Your task to perform on an android device: make emails show in primary in the gmail app Image 0: 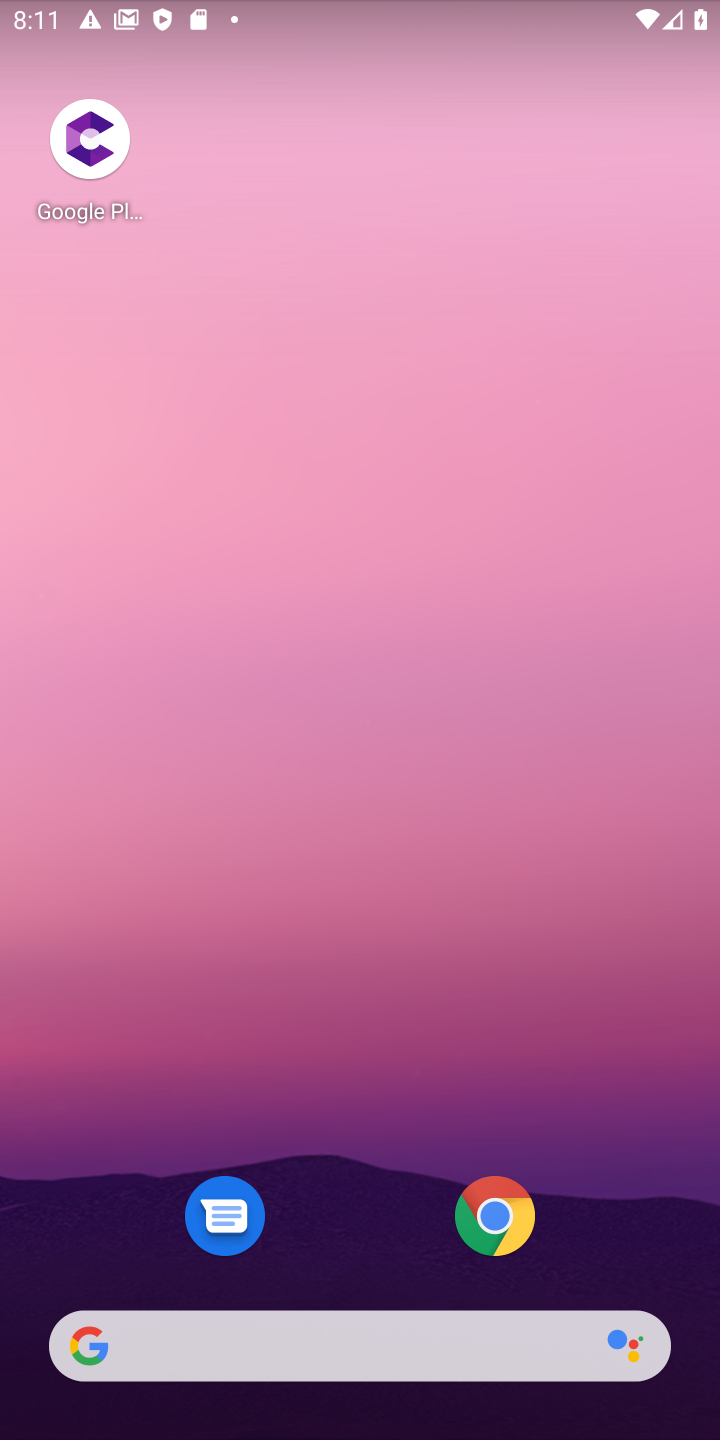
Step 0: drag from (394, 1032) to (570, 74)
Your task to perform on an android device: make emails show in primary in the gmail app Image 1: 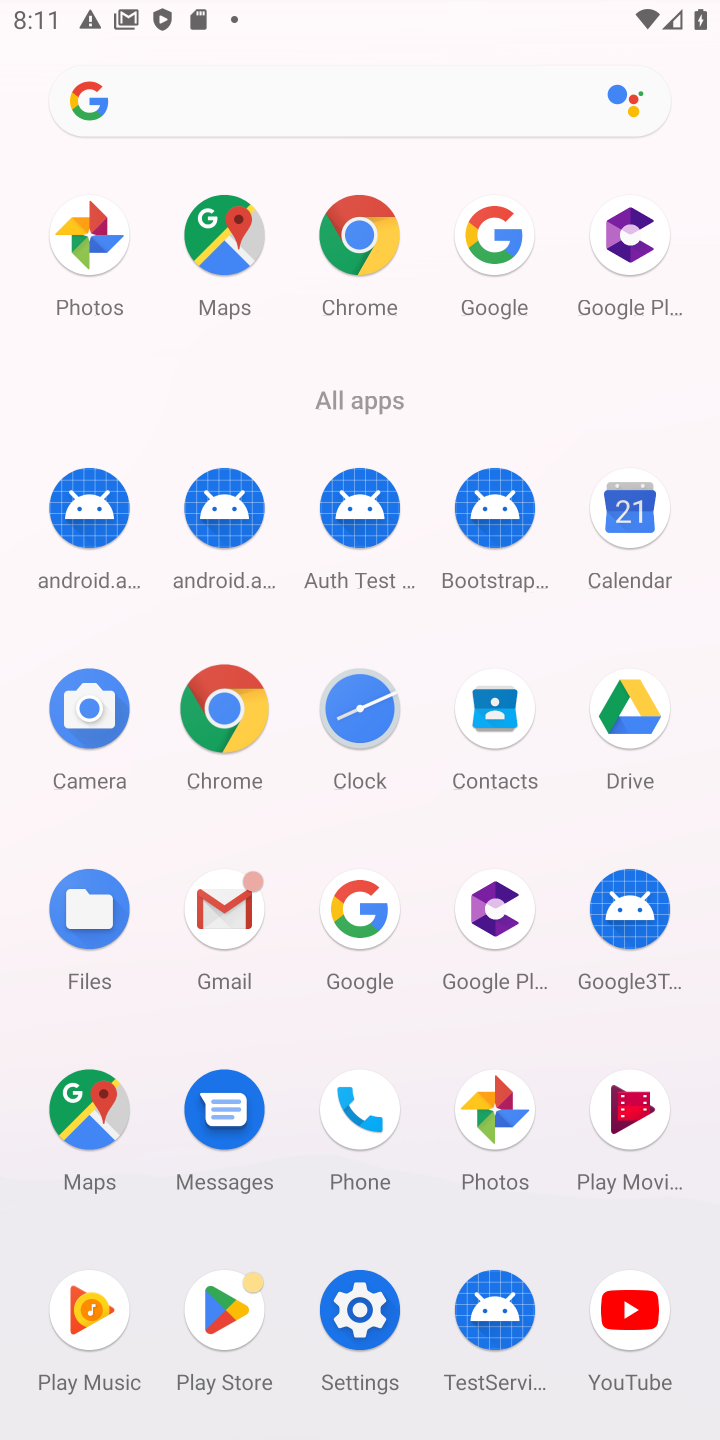
Step 1: click (222, 912)
Your task to perform on an android device: make emails show in primary in the gmail app Image 2: 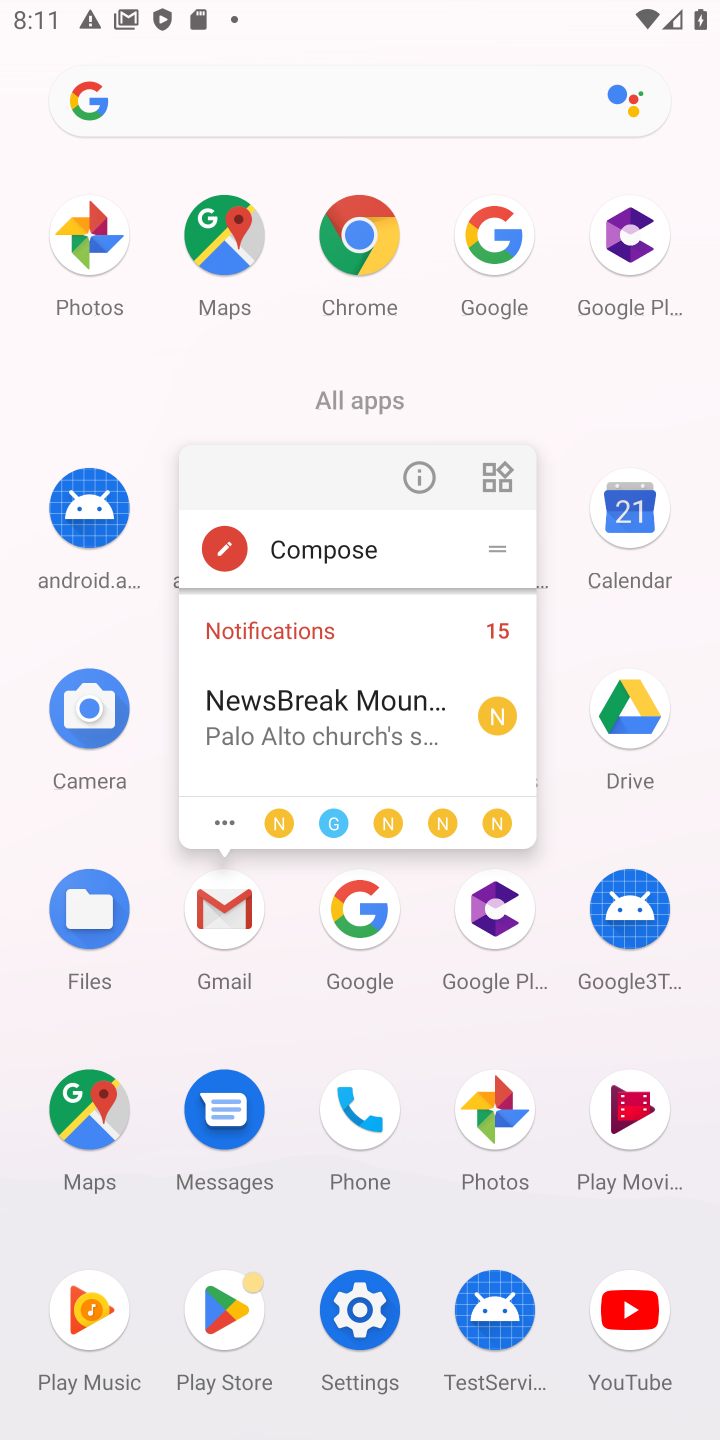
Step 2: click (222, 912)
Your task to perform on an android device: make emails show in primary in the gmail app Image 3: 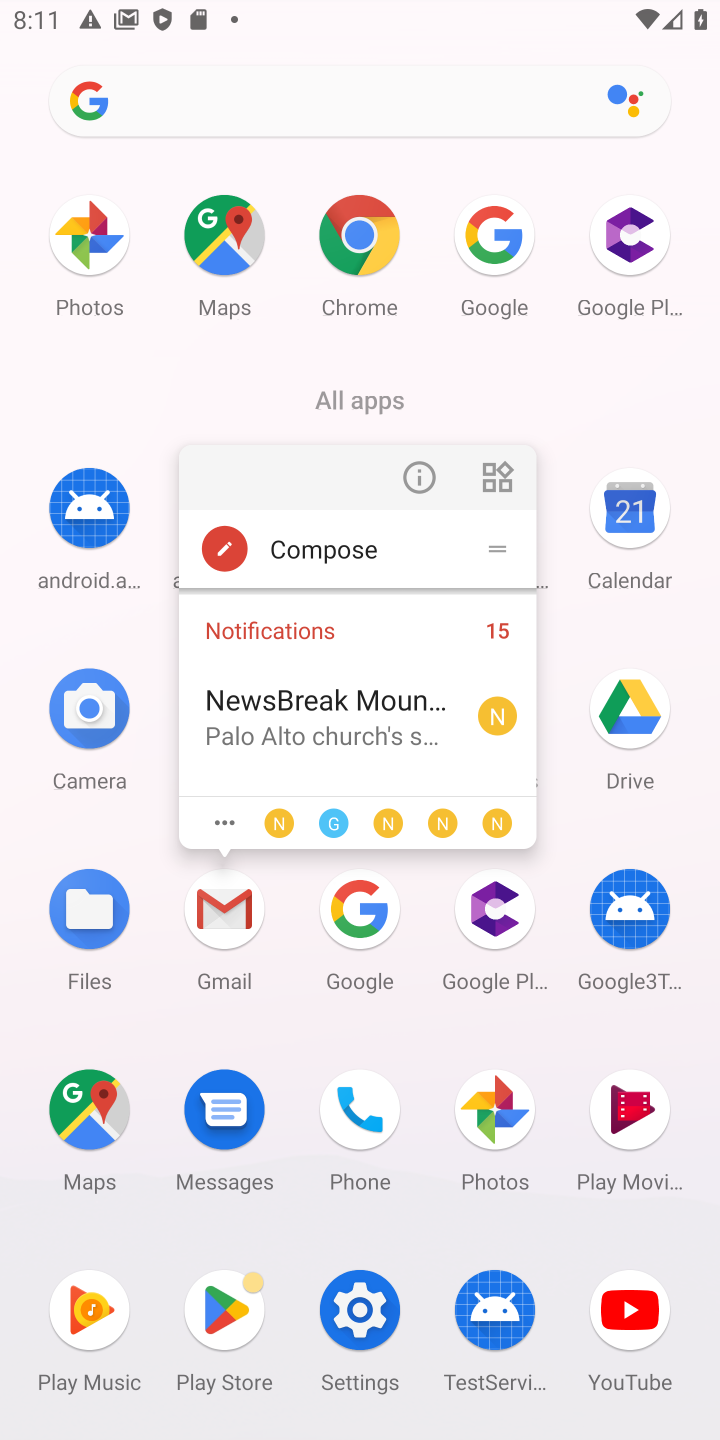
Step 3: click (222, 912)
Your task to perform on an android device: make emails show in primary in the gmail app Image 4: 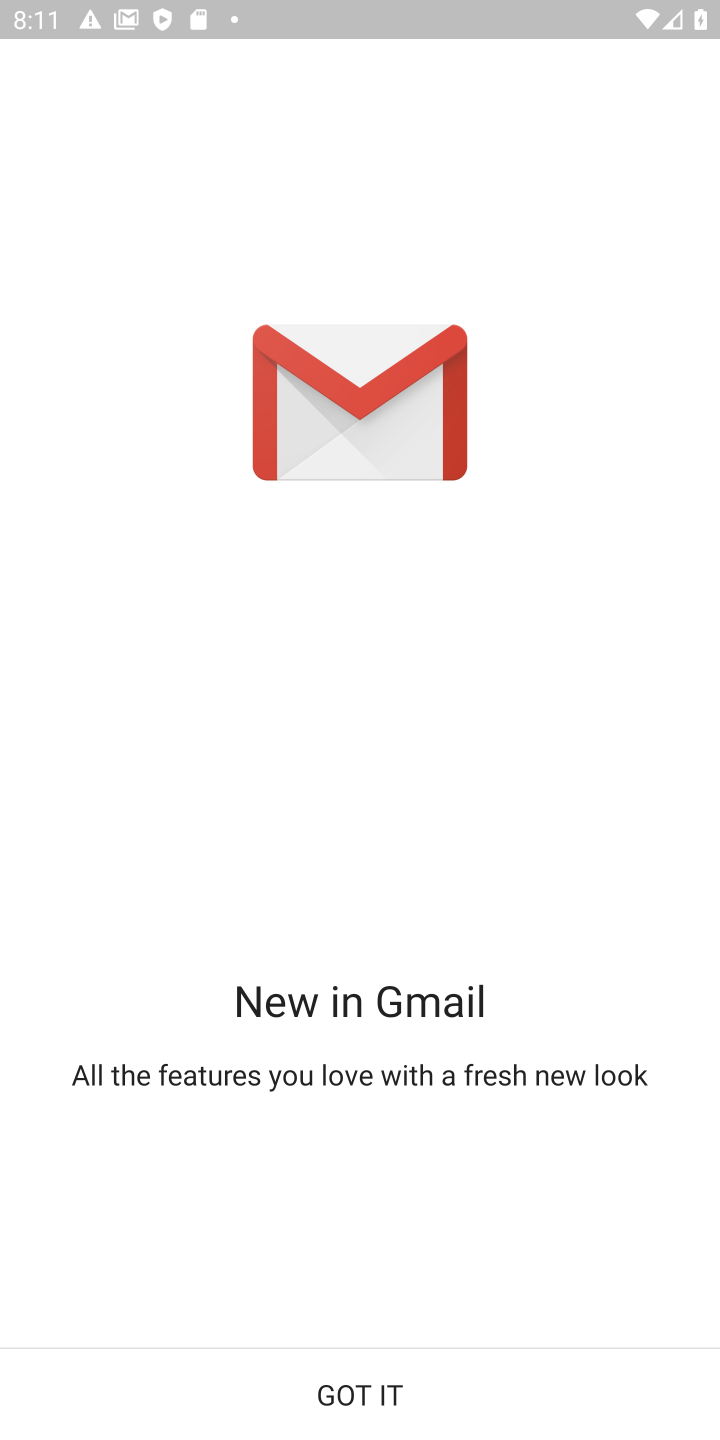
Step 4: click (360, 1405)
Your task to perform on an android device: make emails show in primary in the gmail app Image 5: 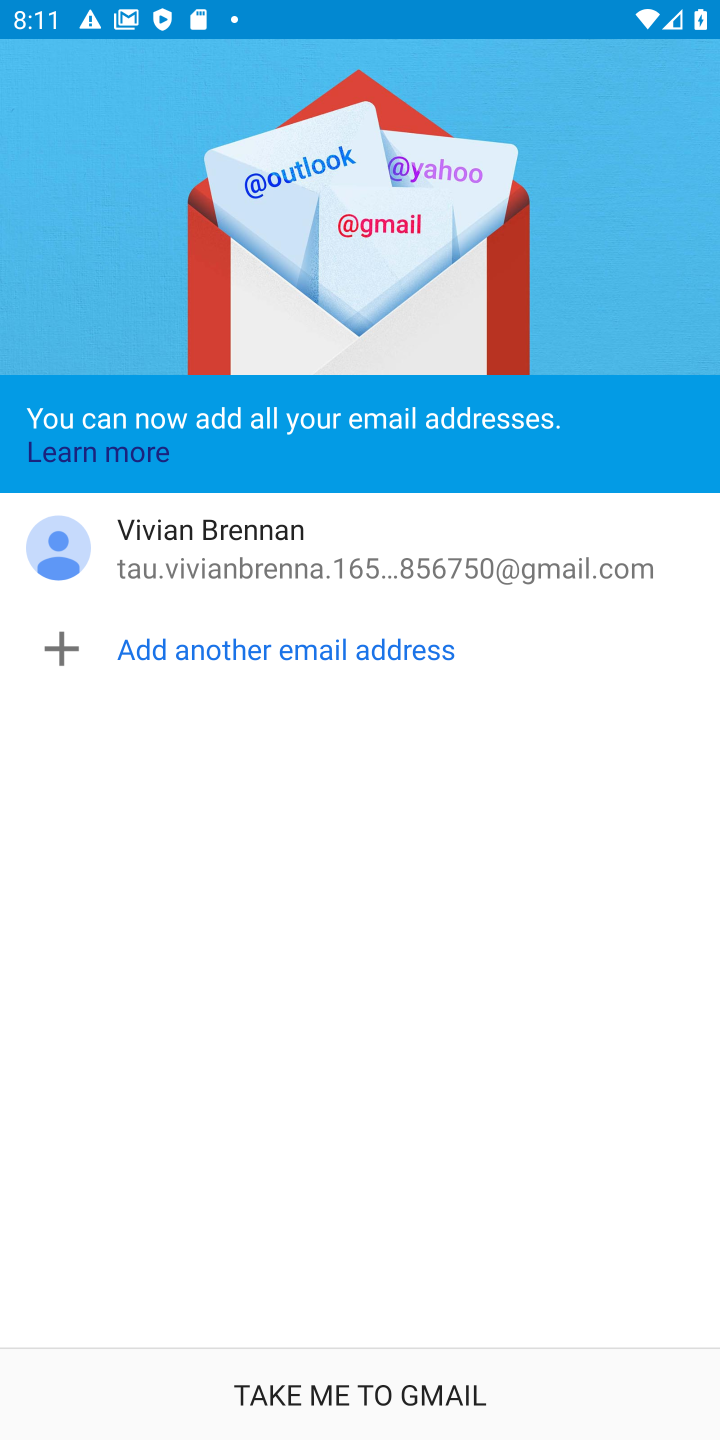
Step 5: click (377, 1395)
Your task to perform on an android device: make emails show in primary in the gmail app Image 6: 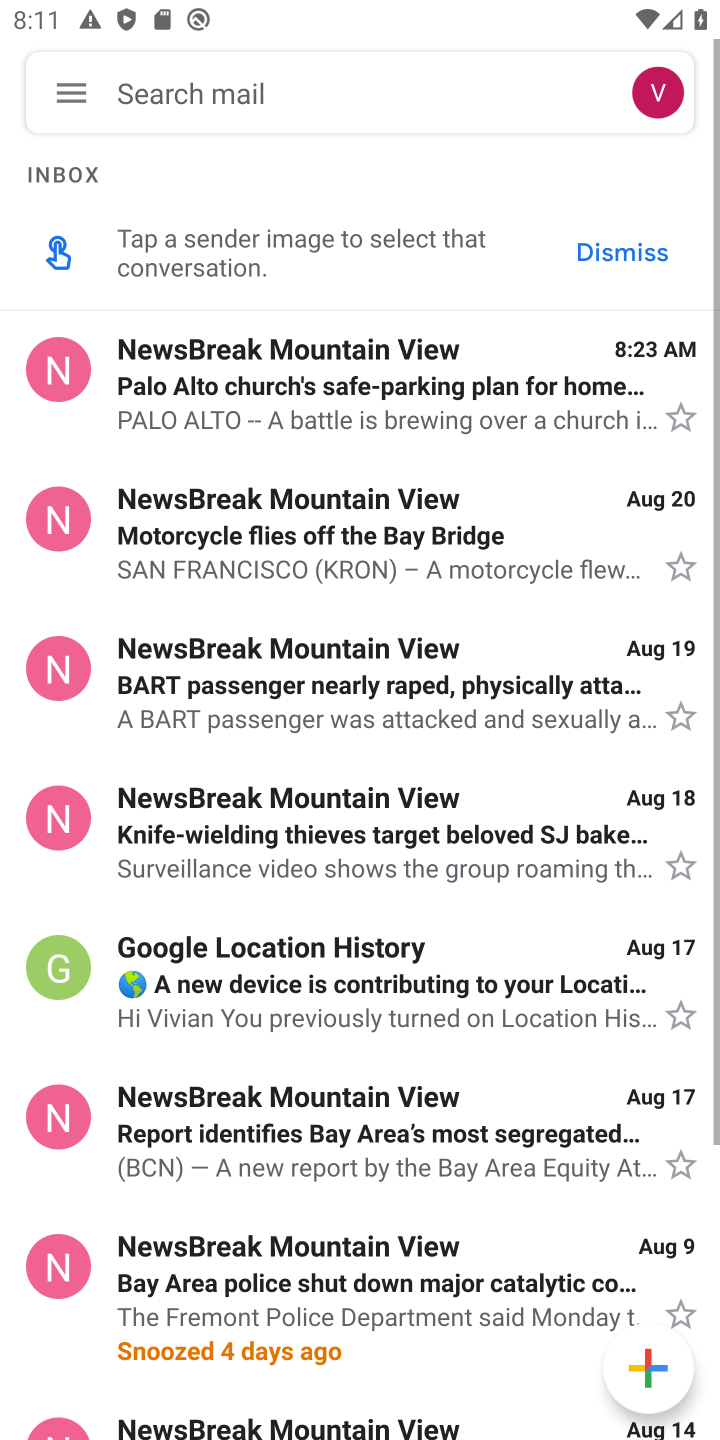
Step 6: task complete